Your task to perform on an android device: change keyboard looks Image 0: 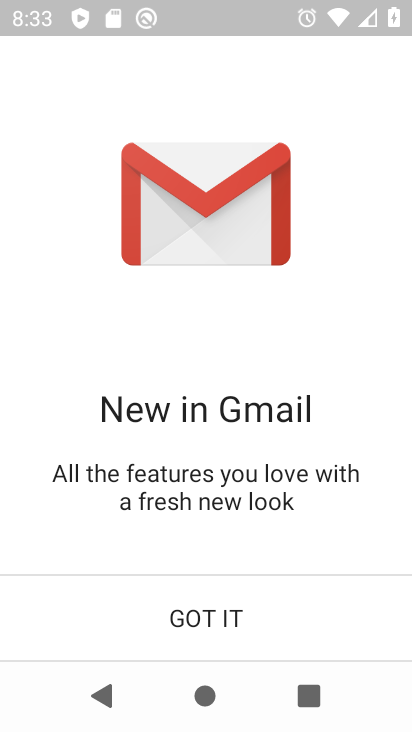
Step 0: press home button
Your task to perform on an android device: change keyboard looks Image 1: 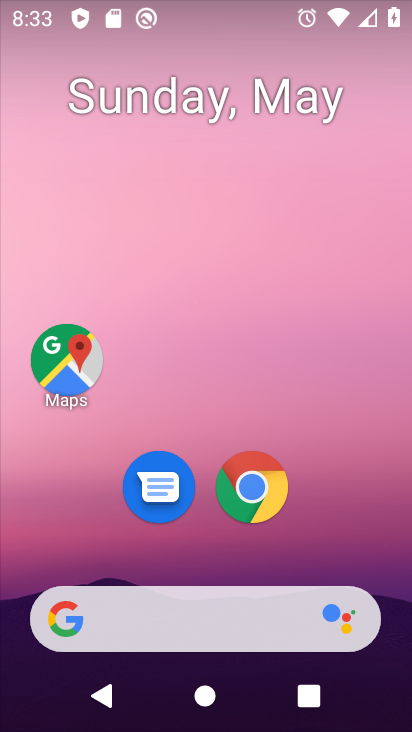
Step 1: drag from (258, 285) to (327, 30)
Your task to perform on an android device: change keyboard looks Image 2: 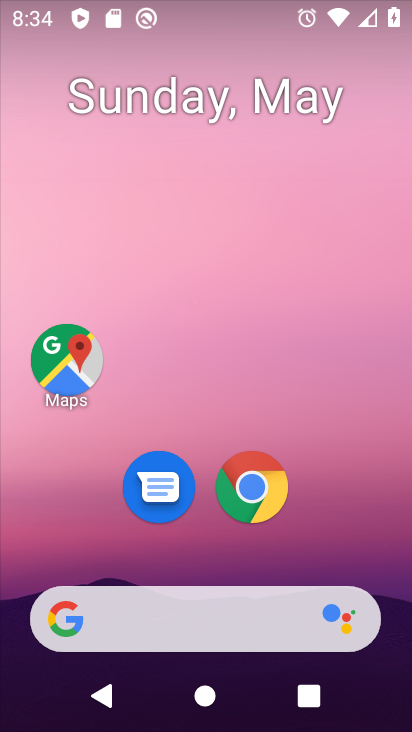
Step 2: drag from (213, 448) to (307, 24)
Your task to perform on an android device: change keyboard looks Image 3: 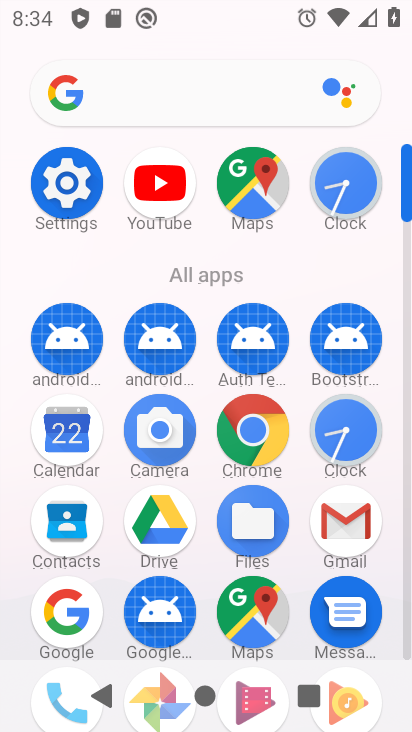
Step 3: click (48, 155)
Your task to perform on an android device: change keyboard looks Image 4: 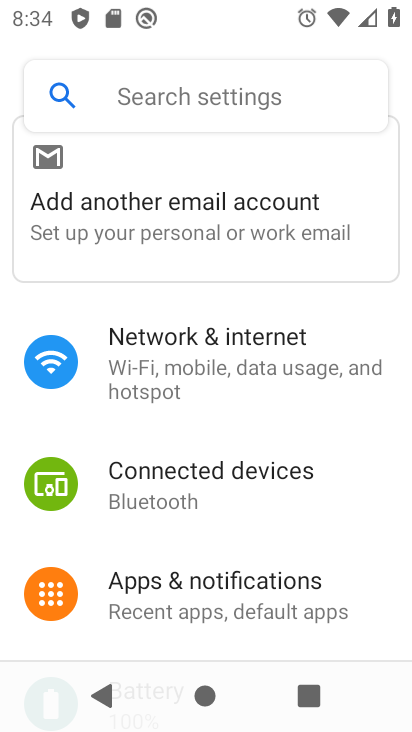
Step 4: drag from (224, 600) to (343, 6)
Your task to perform on an android device: change keyboard looks Image 5: 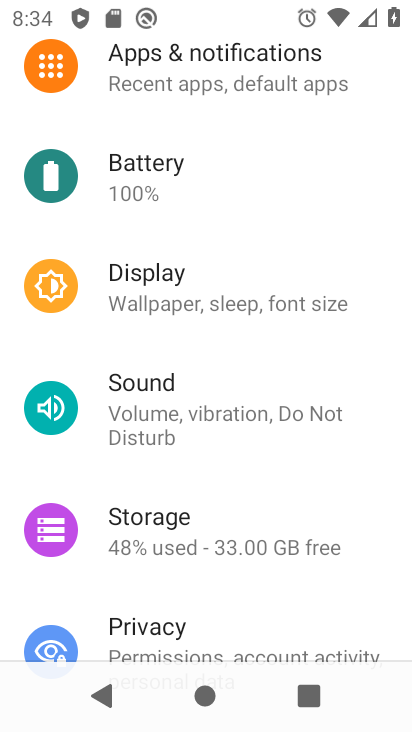
Step 5: drag from (220, 495) to (266, 91)
Your task to perform on an android device: change keyboard looks Image 6: 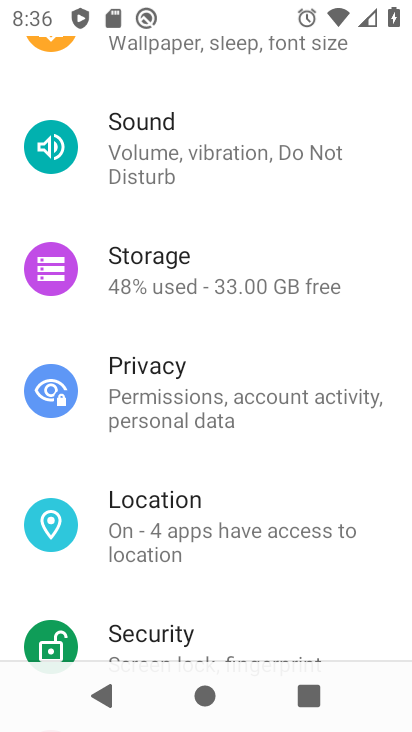
Step 6: click (352, 46)
Your task to perform on an android device: change keyboard looks Image 7: 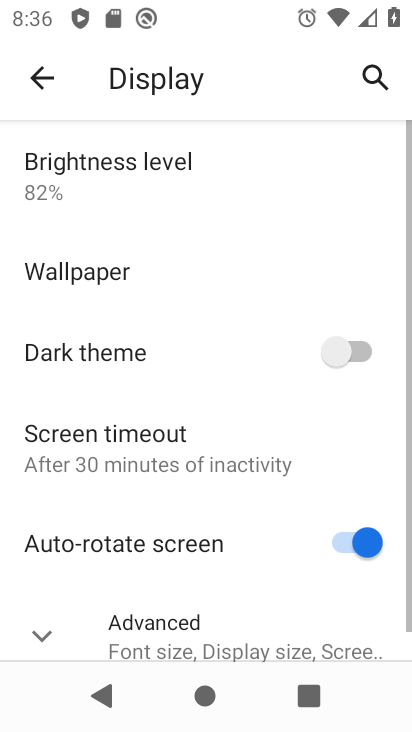
Step 7: drag from (265, 337) to (358, 57)
Your task to perform on an android device: change keyboard looks Image 8: 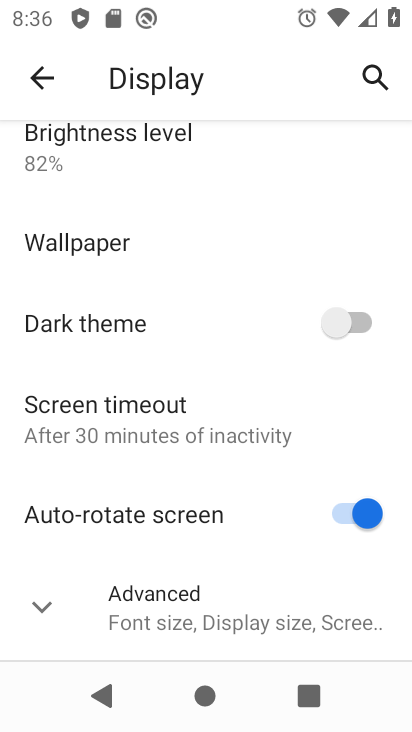
Step 8: click (28, 64)
Your task to perform on an android device: change keyboard looks Image 9: 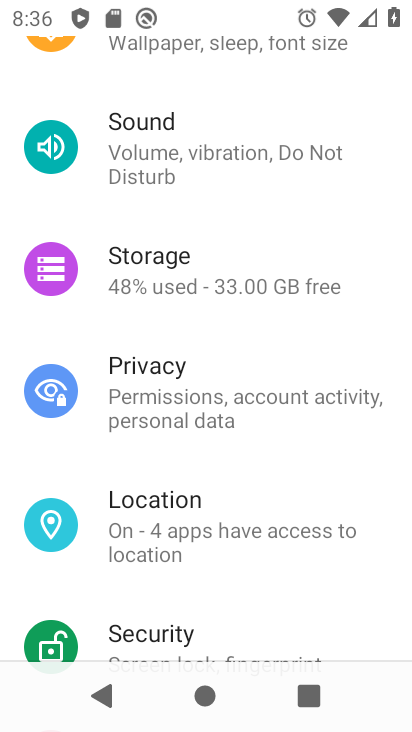
Step 9: drag from (200, 636) to (315, 150)
Your task to perform on an android device: change keyboard looks Image 10: 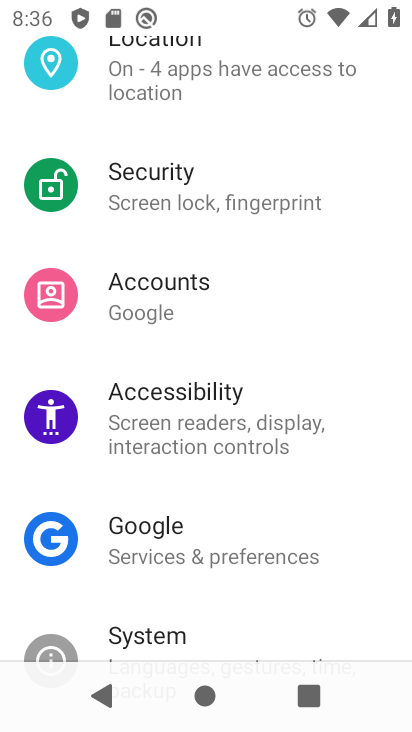
Step 10: click (365, 51)
Your task to perform on an android device: change keyboard looks Image 11: 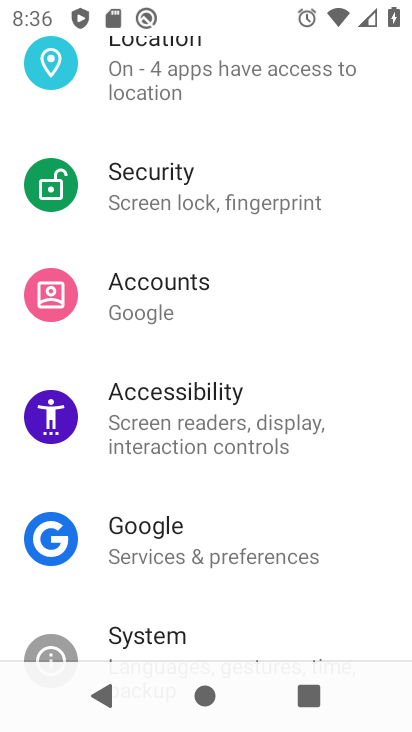
Step 11: click (160, 635)
Your task to perform on an android device: change keyboard looks Image 12: 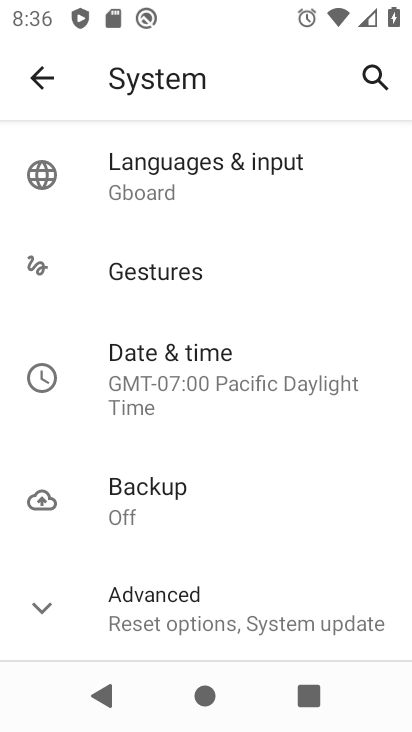
Step 12: click (195, 193)
Your task to perform on an android device: change keyboard looks Image 13: 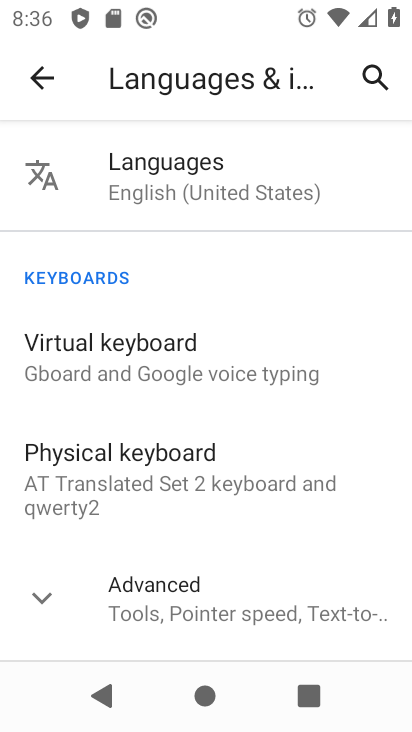
Step 13: click (150, 372)
Your task to perform on an android device: change keyboard looks Image 14: 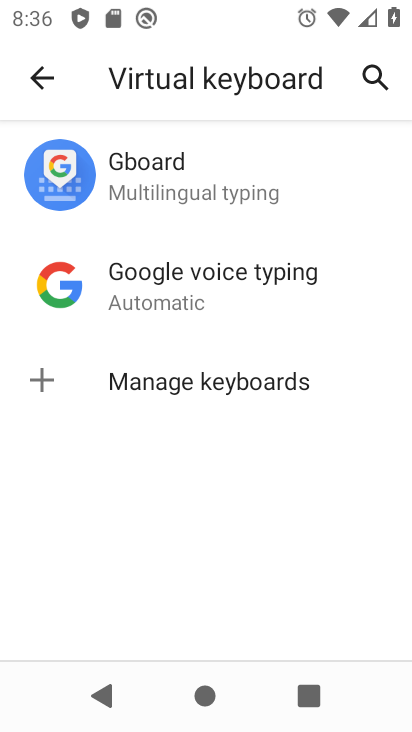
Step 14: click (201, 179)
Your task to perform on an android device: change keyboard looks Image 15: 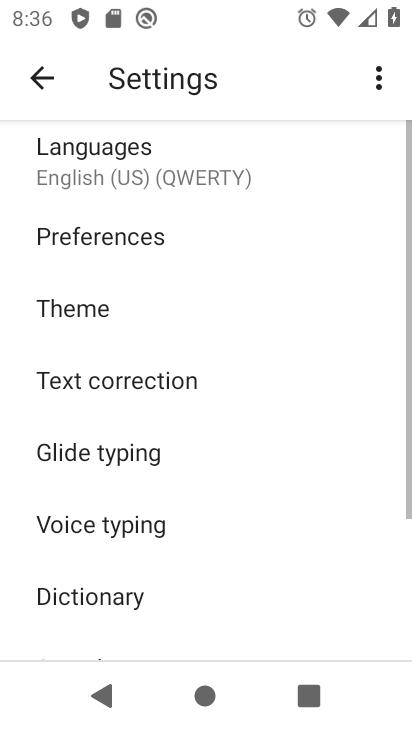
Step 15: click (83, 331)
Your task to perform on an android device: change keyboard looks Image 16: 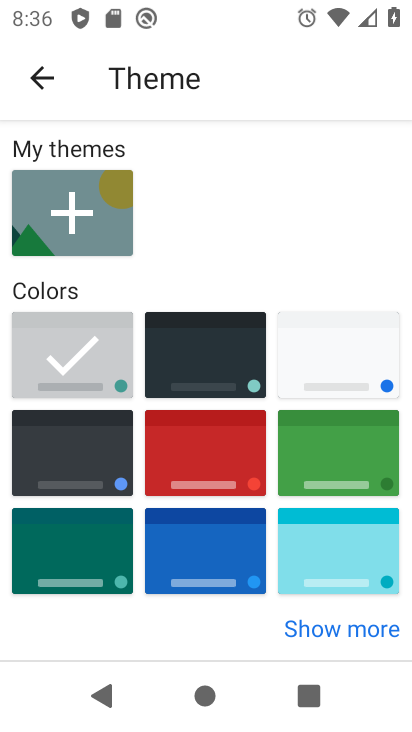
Step 16: click (350, 456)
Your task to perform on an android device: change keyboard looks Image 17: 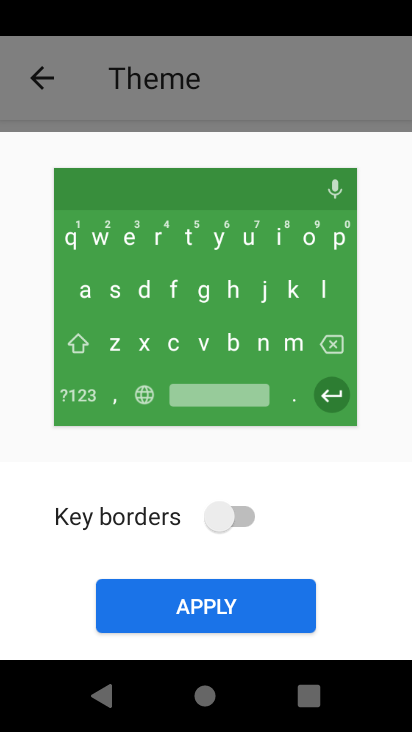
Step 17: click (186, 592)
Your task to perform on an android device: change keyboard looks Image 18: 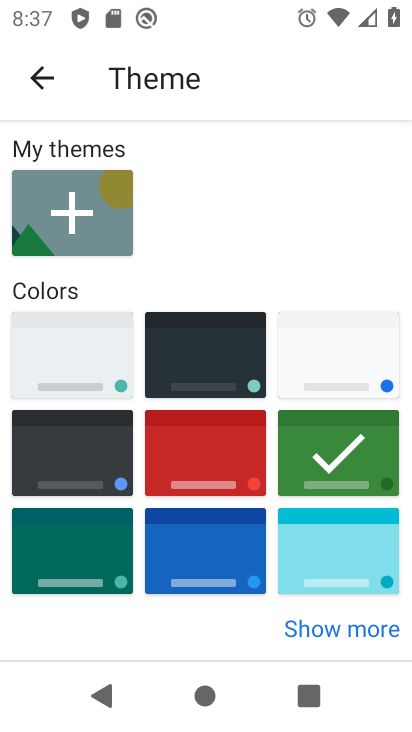
Step 18: task complete